Your task to perform on an android device: open chrome and create a bookmark for the current page Image 0: 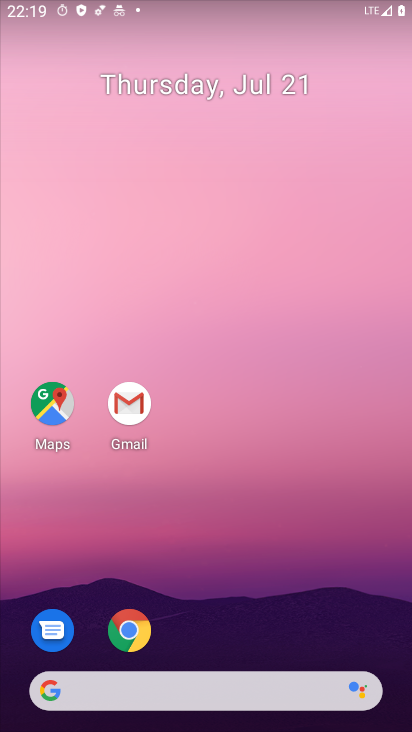
Step 0: drag from (235, 622) to (235, 95)
Your task to perform on an android device: open chrome and create a bookmark for the current page Image 1: 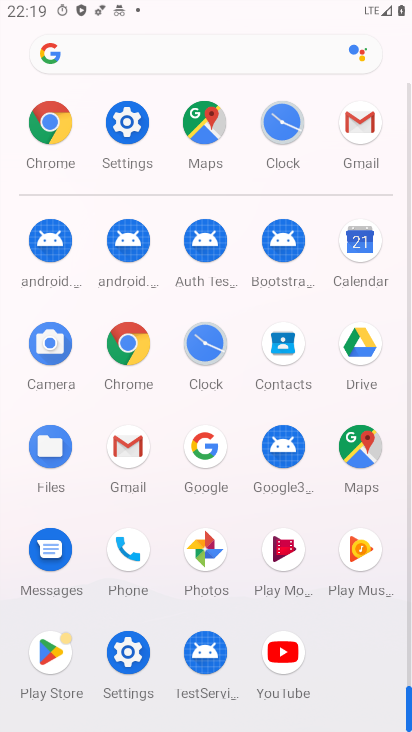
Step 1: click (49, 118)
Your task to perform on an android device: open chrome and create a bookmark for the current page Image 2: 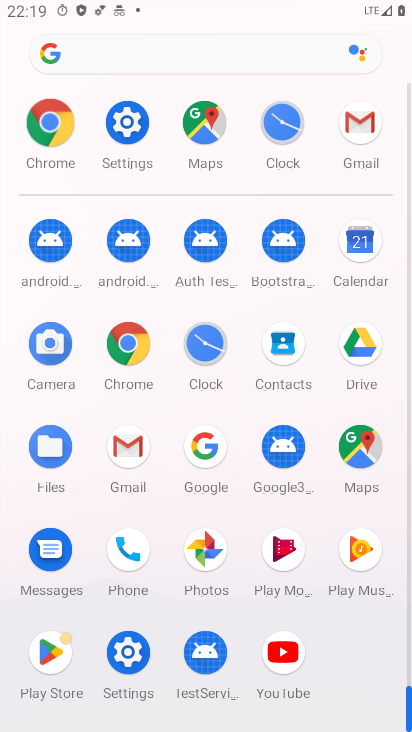
Step 2: click (48, 118)
Your task to perform on an android device: open chrome and create a bookmark for the current page Image 3: 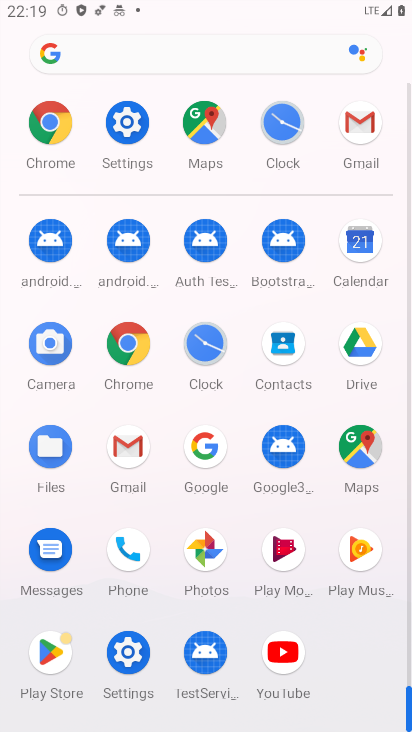
Step 3: click (49, 126)
Your task to perform on an android device: open chrome and create a bookmark for the current page Image 4: 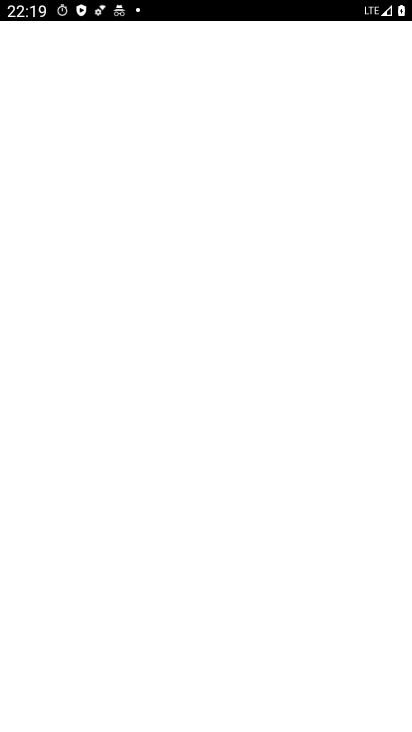
Step 4: click (49, 126)
Your task to perform on an android device: open chrome and create a bookmark for the current page Image 5: 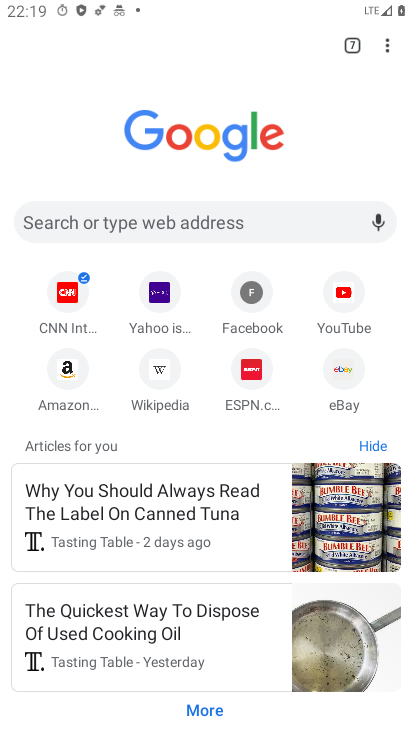
Step 5: click (380, 47)
Your task to perform on an android device: open chrome and create a bookmark for the current page Image 6: 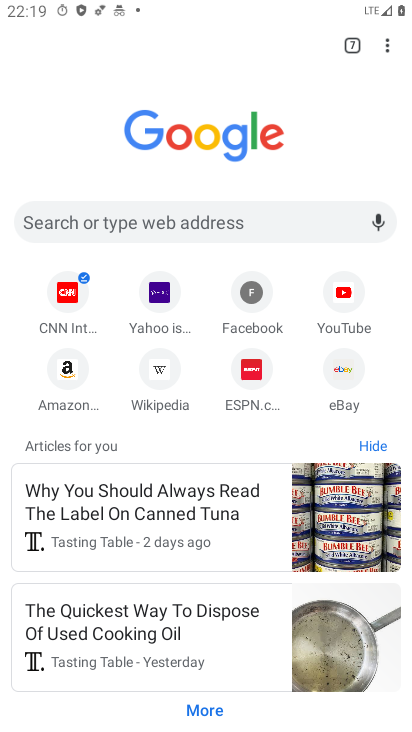
Step 6: drag from (390, 47) to (249, 50)
Your task to perform on an android device: open chrome and create a bookmark for the current page Image 7: 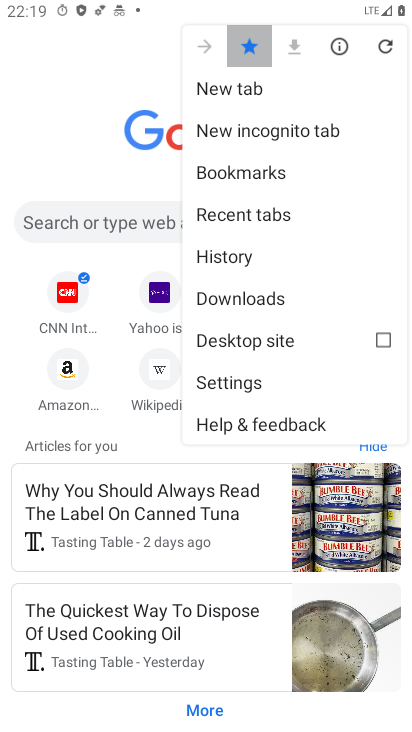
Step 7: click (249, 50)
Your task to perform on an android device: open chrome and create a bookmark for the current page Image 8: 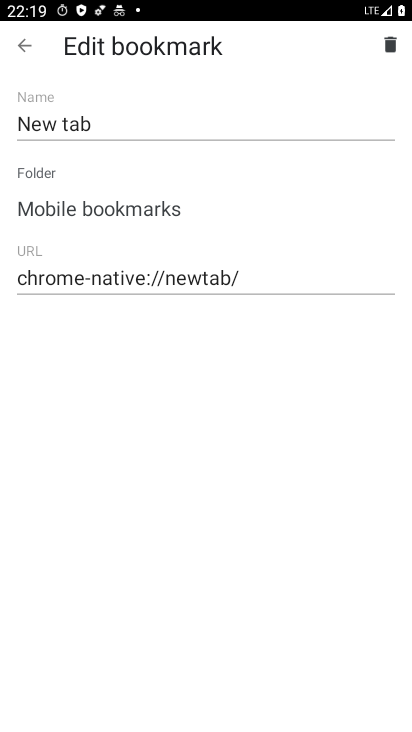
Step 8: task complete